Your task to perform on an android device: Go to Yahoo.com Image 0: 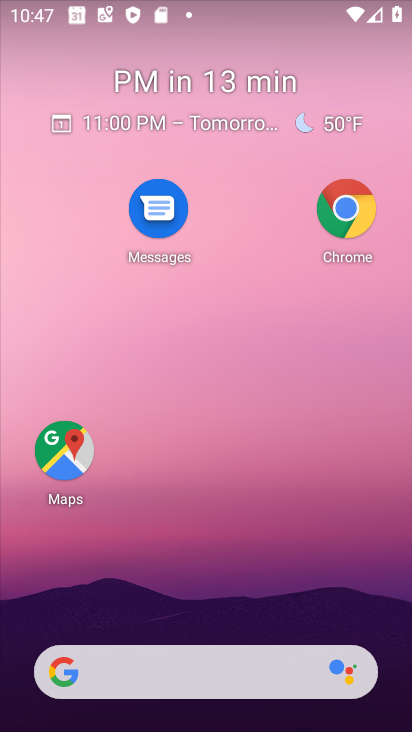
Step 0: drag from (224, 637) to (207, 16)
Your task to perform on an android device: Go to Yahoo.com Image 1: 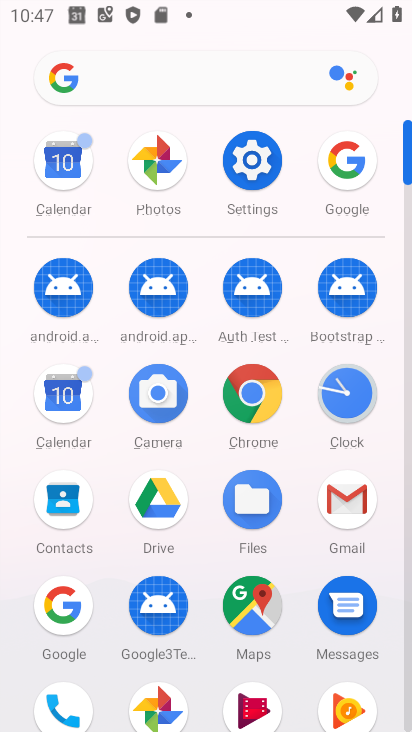
Step 1: click (255, 415)
Your task to perform on an android device: Go to Yahoo.com Image 2: 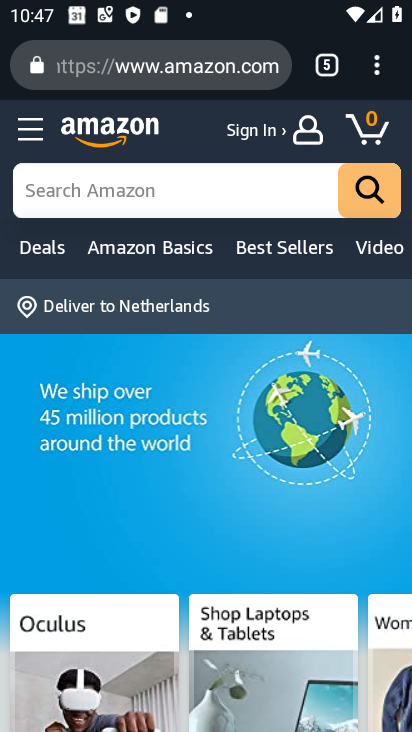
Step 2: click (330, 58)
Your task to perform on an android device: Go to Yahoo.com Image 3: 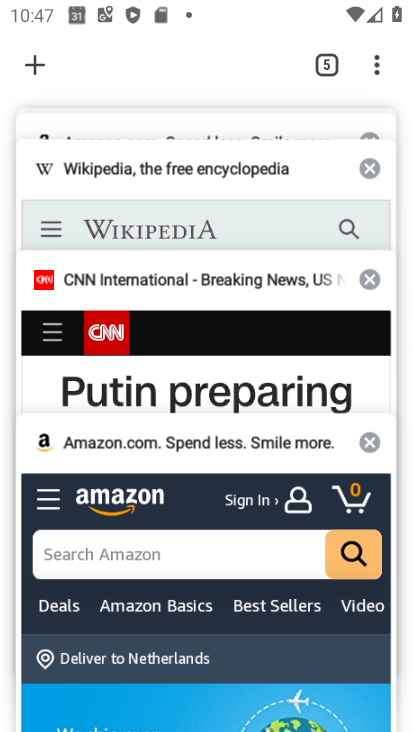
Step 3: click (22, 51)
Your task to perform on an android device: Go to Yahoo.com Image 4: 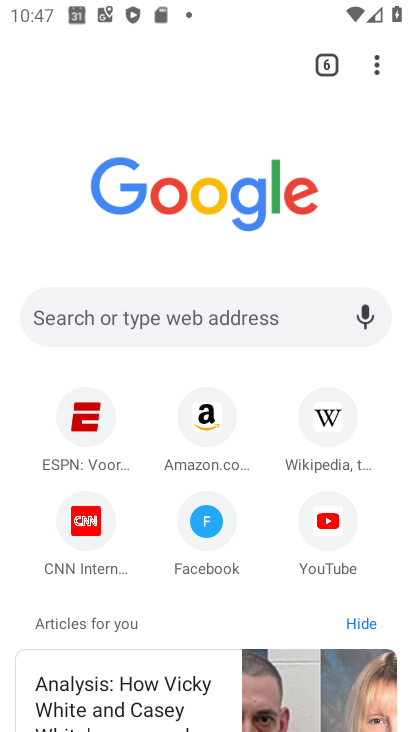
Step 4: click (164, 328)
Your task to perform on an android device: Go to Yahoo.com Image 5: 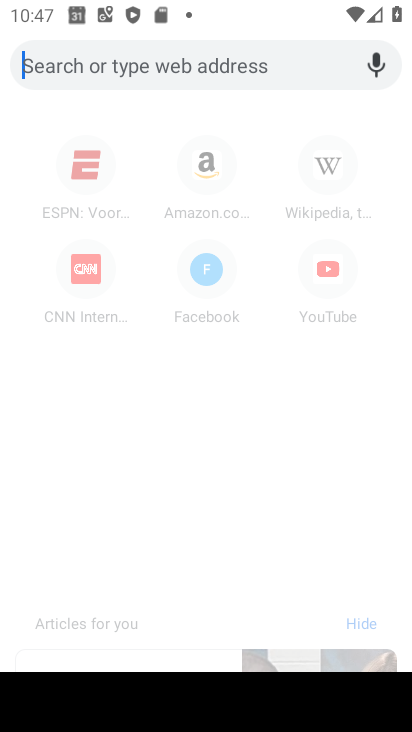
Step 5: type "yahoo"
Your task to perform on an android device: Go to Yahoo.com Image 6: 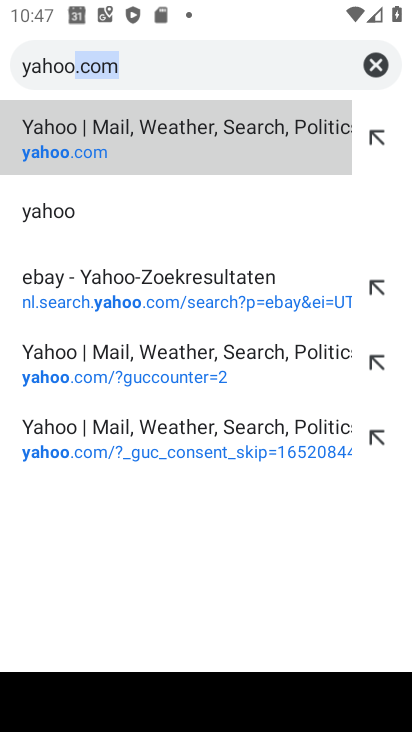
Step 6: click (132, 287)
Your task to perform on an android device: Go to Yahoo.com Image 7: 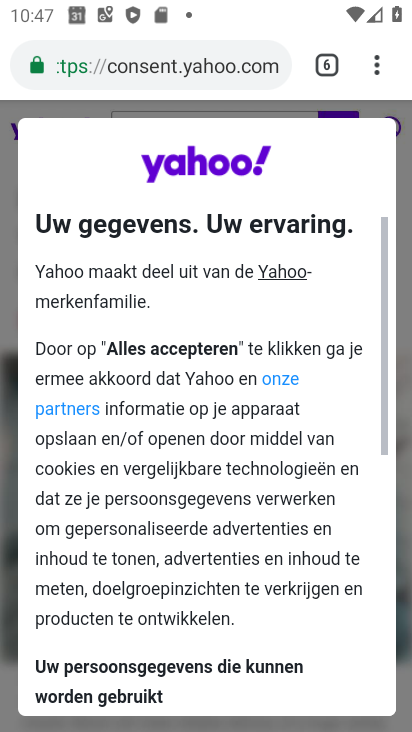
Step 7: drag from (203, 644) to (205, 128)
Your task to perform on an android device: Go to Yahoo.com Image 8: 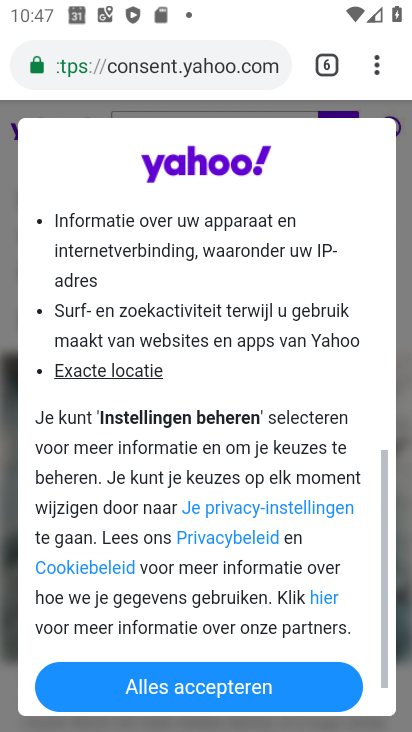
Step 8: click (253, 675)
Your task to perform on an android device: Go to Yahoo.com Image 9: 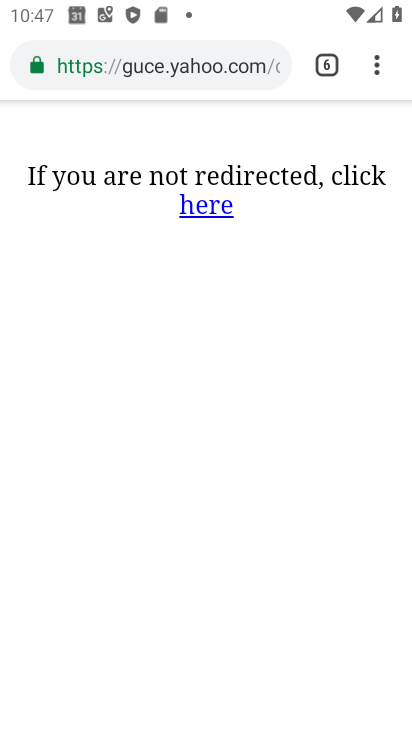
Step 9: task complete